Your task to perform on an android device: open chrome and create a bookmark for the current page Image 0: 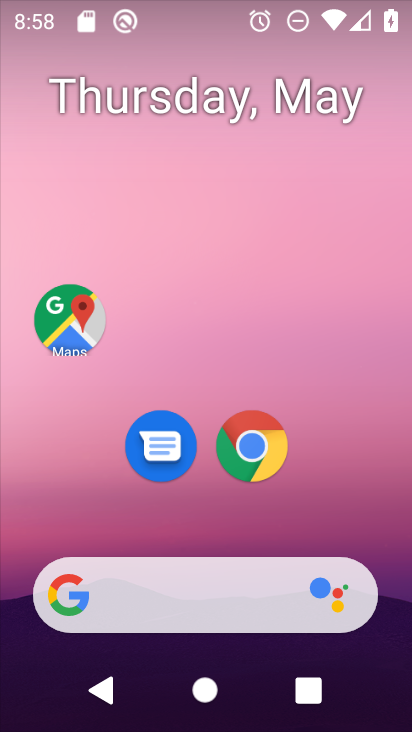
Step 0: drag from (377, 522) to (354, 161)
Your task to perform on an android device: open chrome and create a bookmark for the current page Image 1: 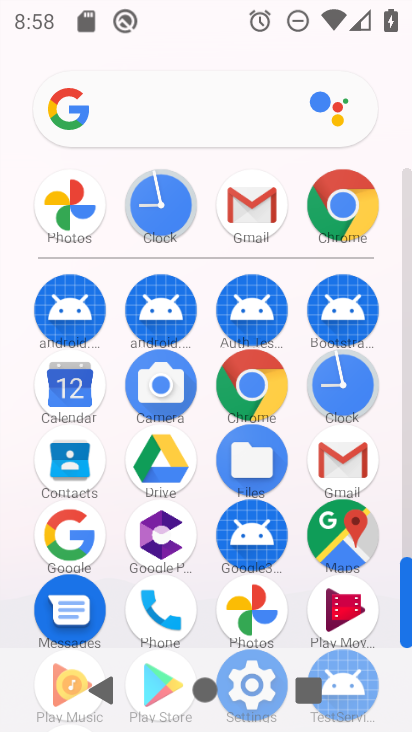
Step 1: click (234, 384)
Your task to perform on an android device: open chrome and create a bookmark for the current page Image 2: 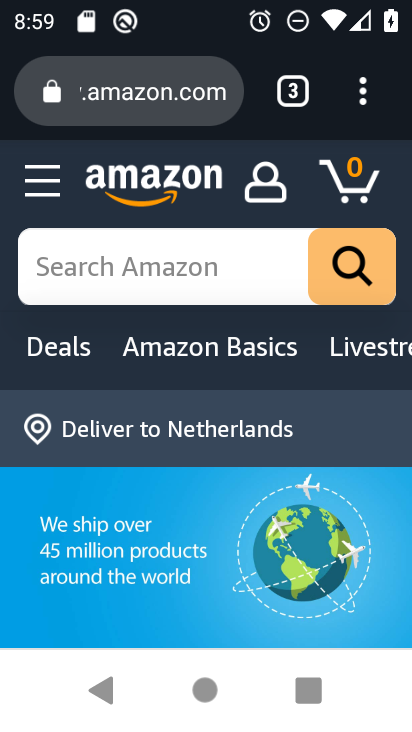
Step 2: task complete